Your task to perform on an android device: Search for the ikea billy bookcase Image 0: 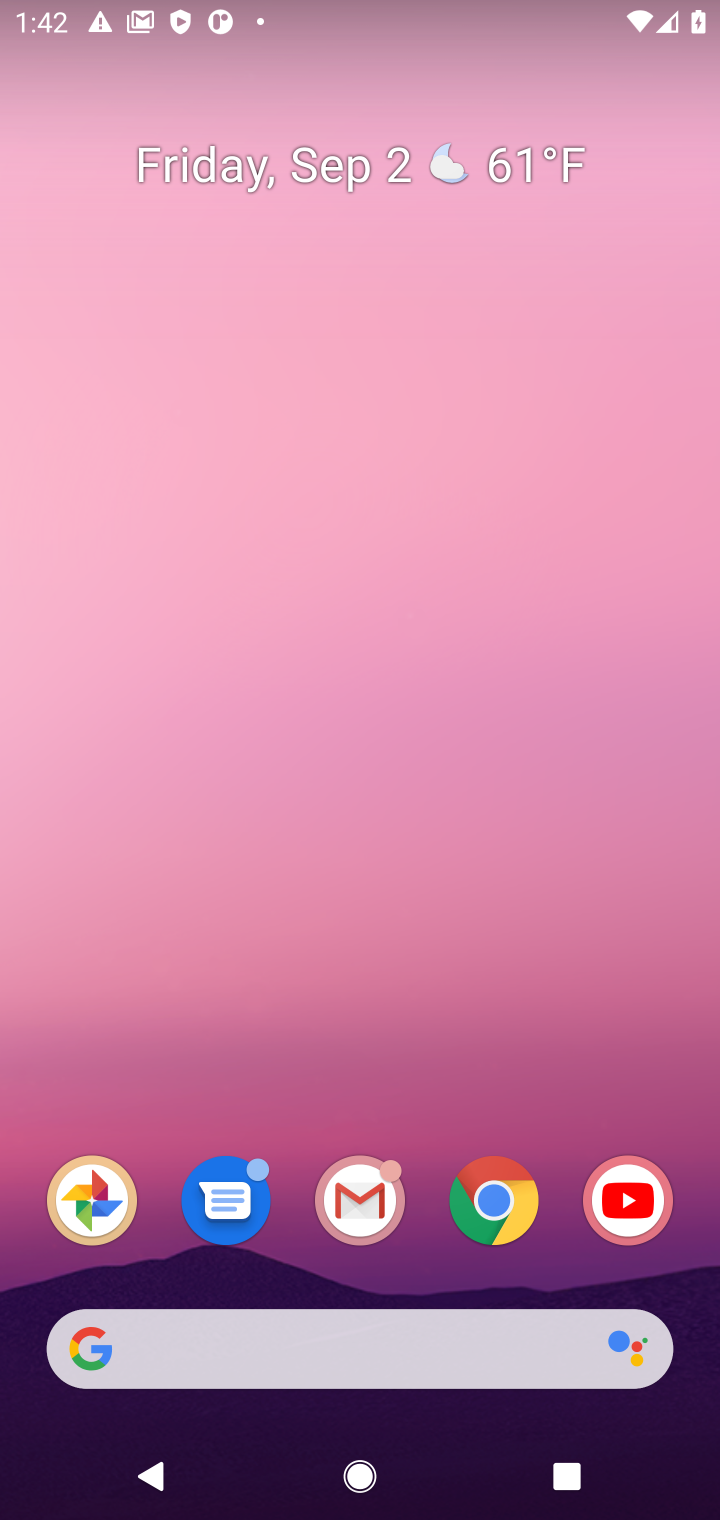
Step 0: click (503, 1217)
Your task to perform on an android device: Search for the ikea billy bookcase Image 1: 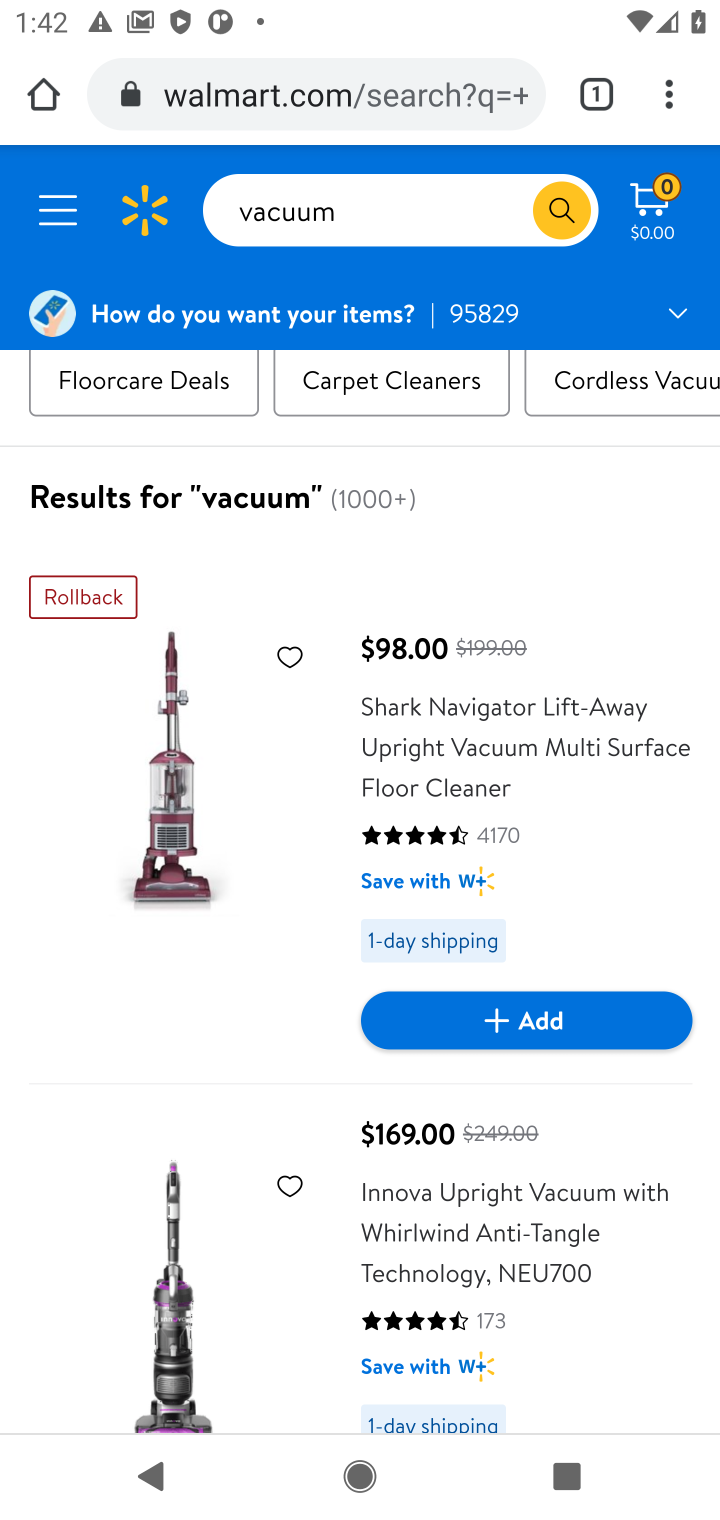
Step 1: click (426, 82)
Your task to perform on an android device: Search for the ikea billy bookcase Image 2: 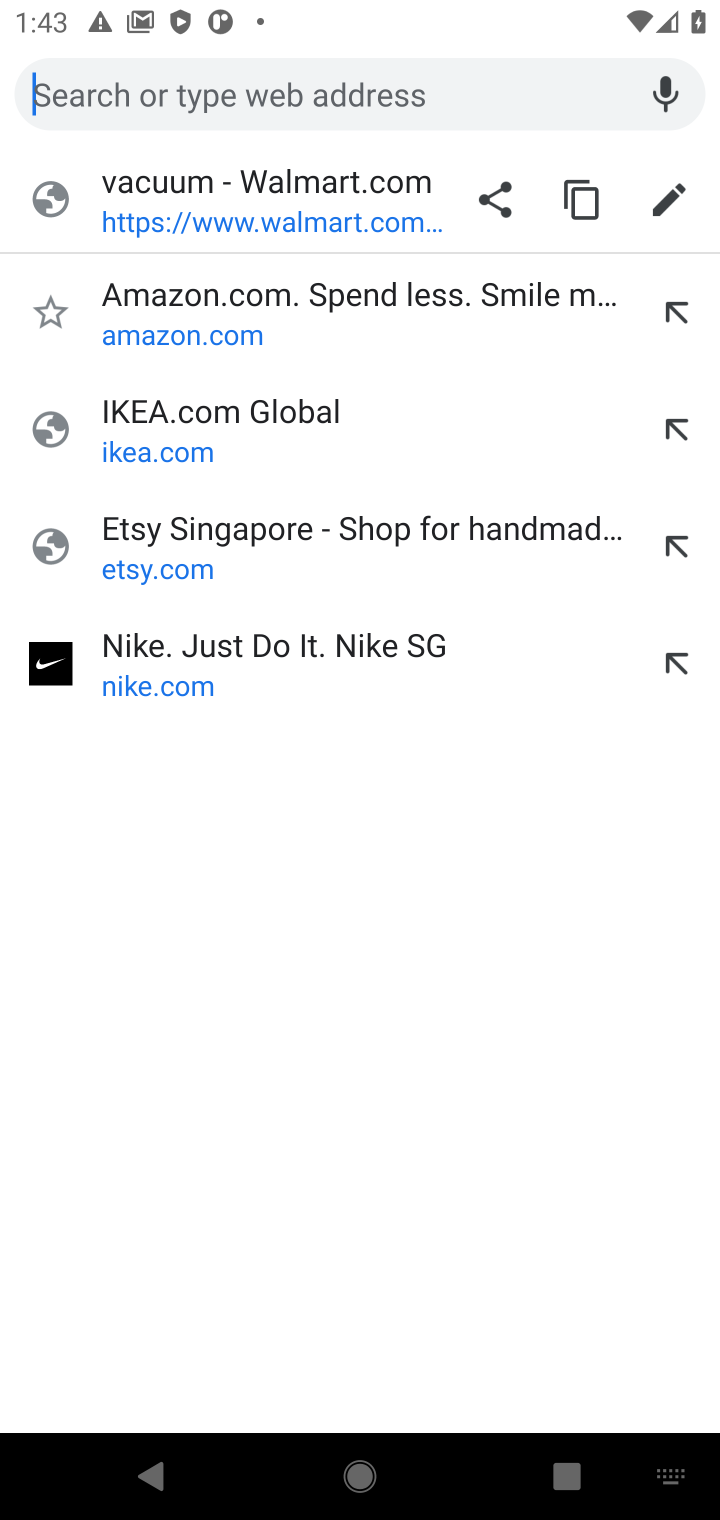
Step 2: type "ikea billy bookcase"
Your task to perform on an android device: Search for the ikea billy bookcase Image 3: 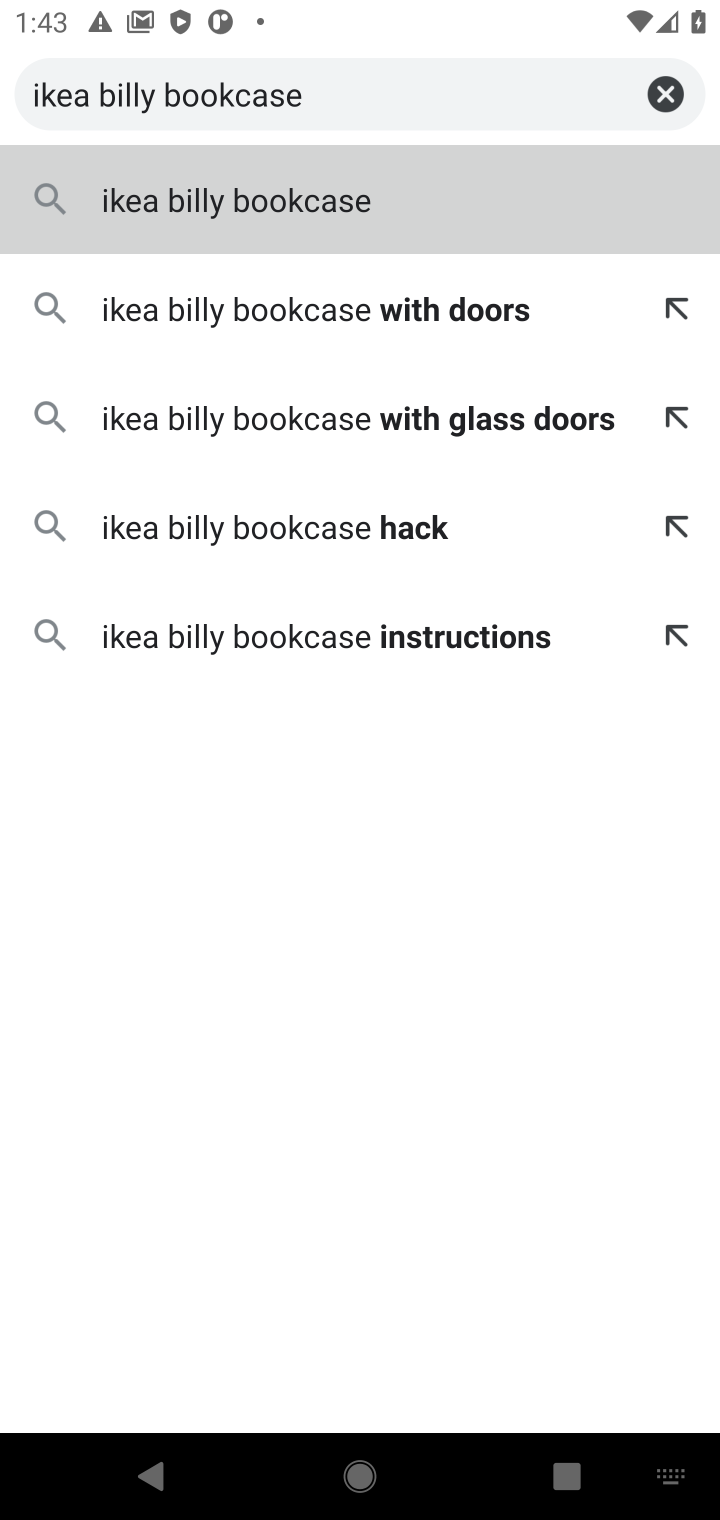
Step 3: press enter
Your task to perform on an android device: Search for the ikea billy bookcase Image 4: 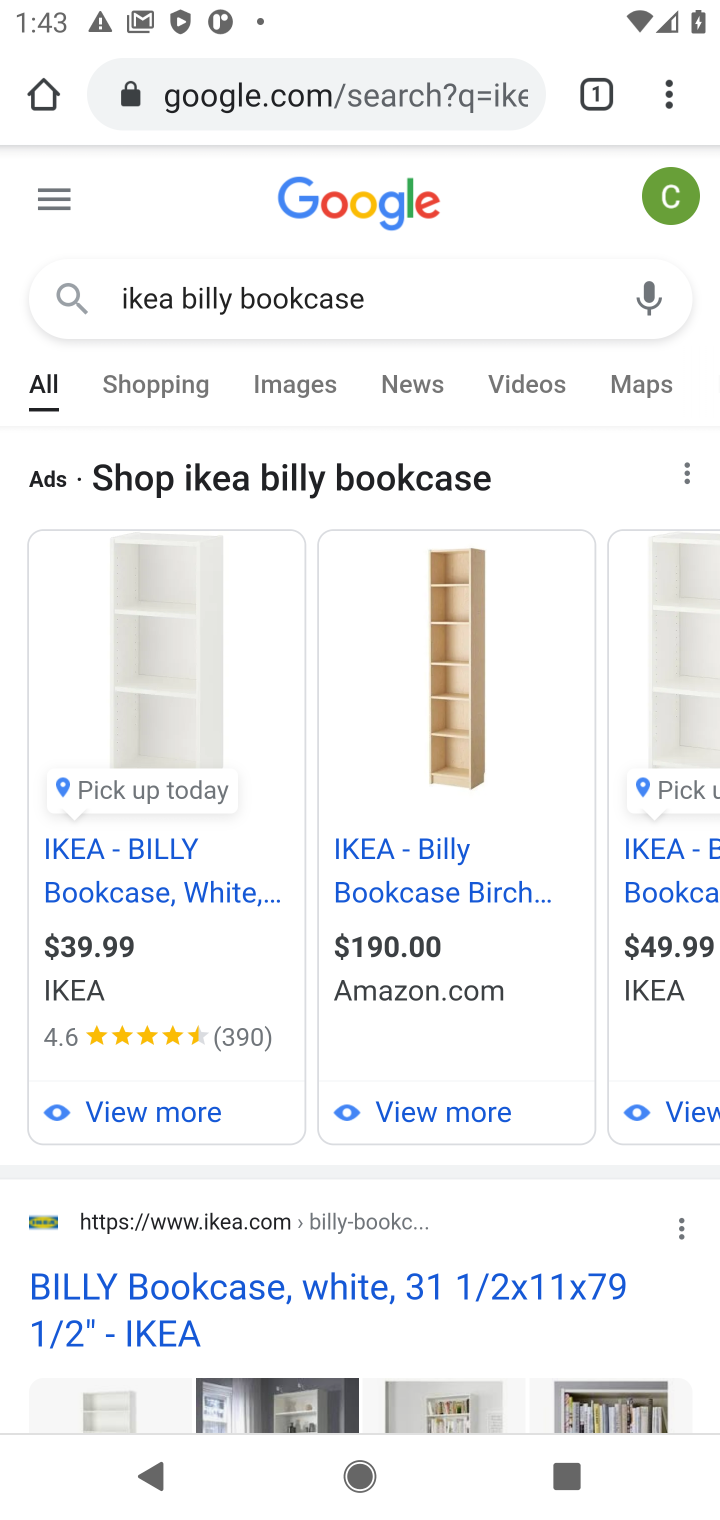
Step 4: drag from (335, 1292) to (417, 732)
Your task to perform on an android device: Search for the ikea billy bookcase Image 5: 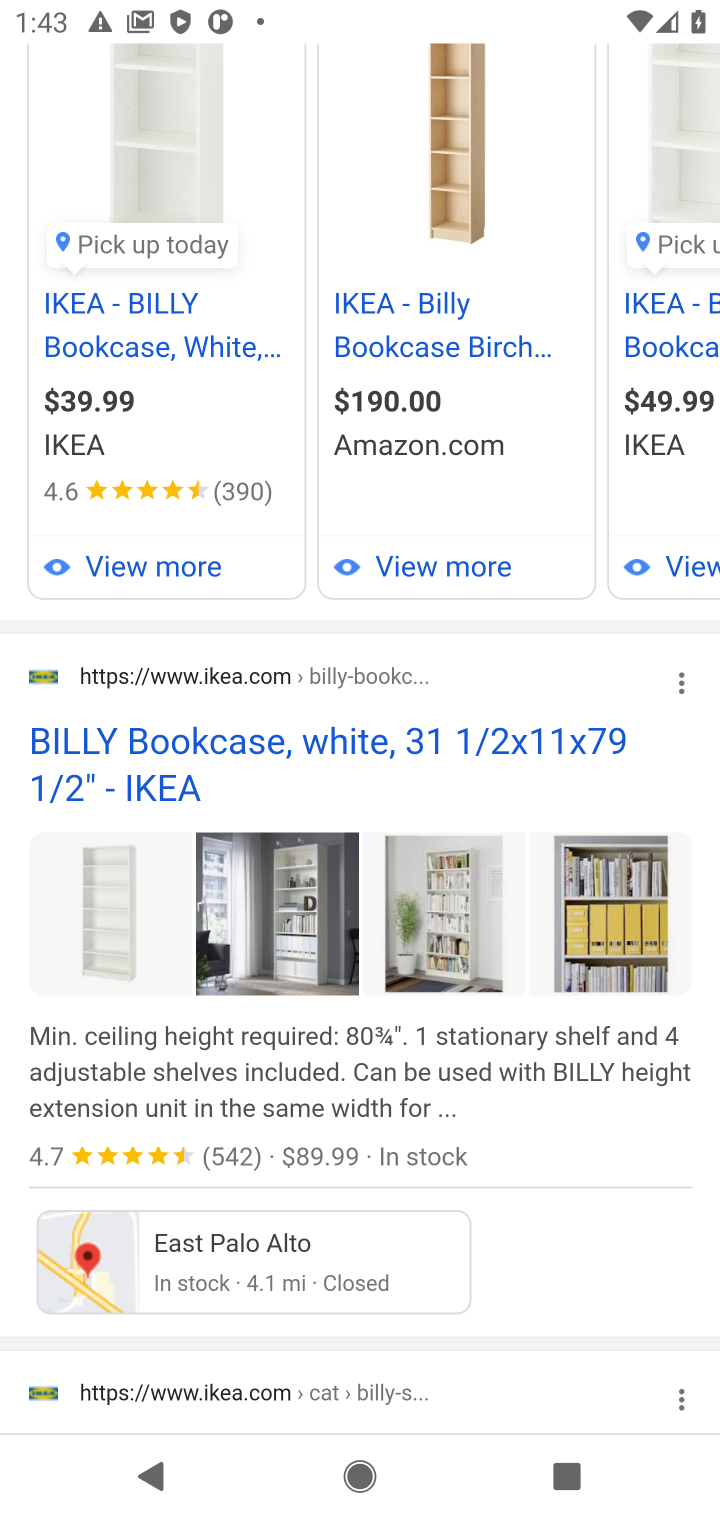
Step 5: click (366, 747)
Your task to perform on an android device: Search for the ikea billy bookcase Image 6: 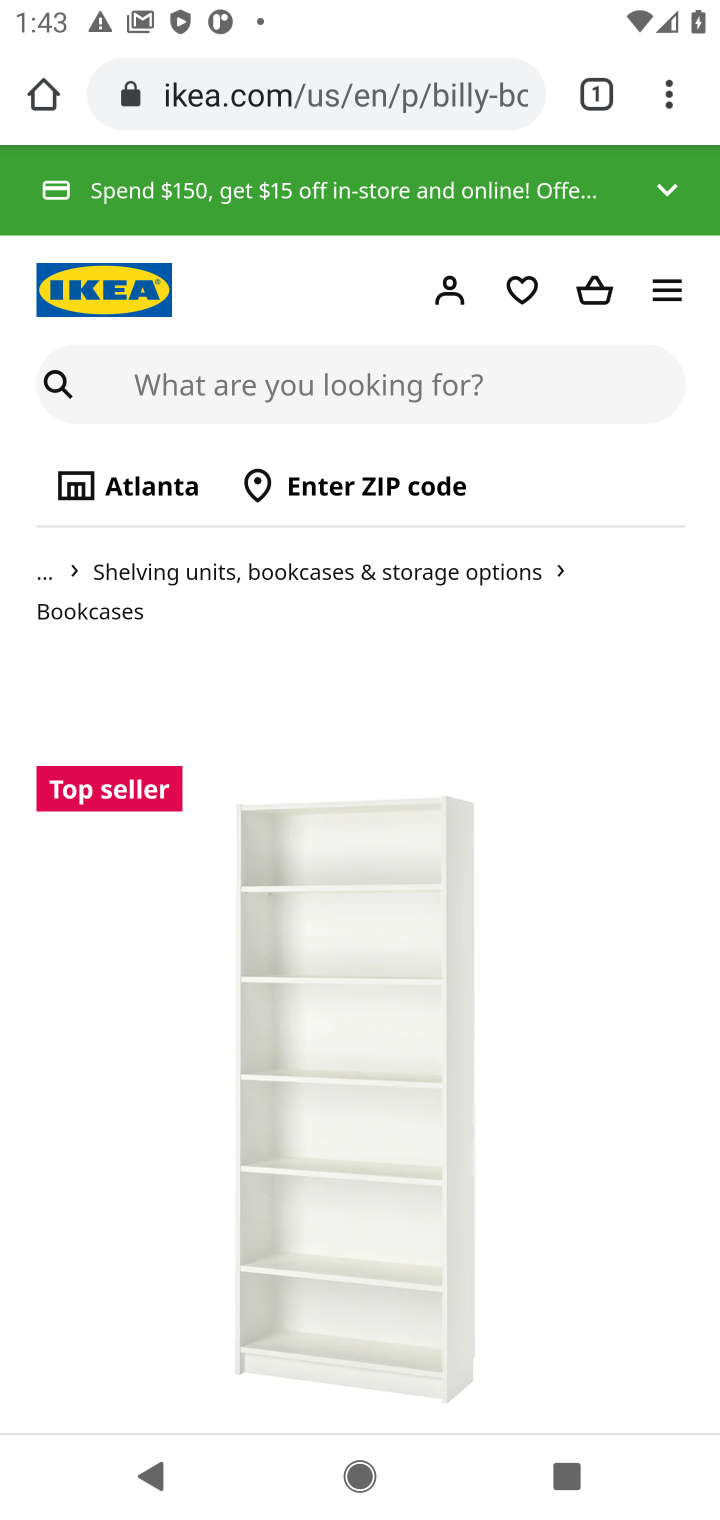
Step 6: task complete